Your task to perform on an android device: turn on notifications settings in the gmail app Image 0: 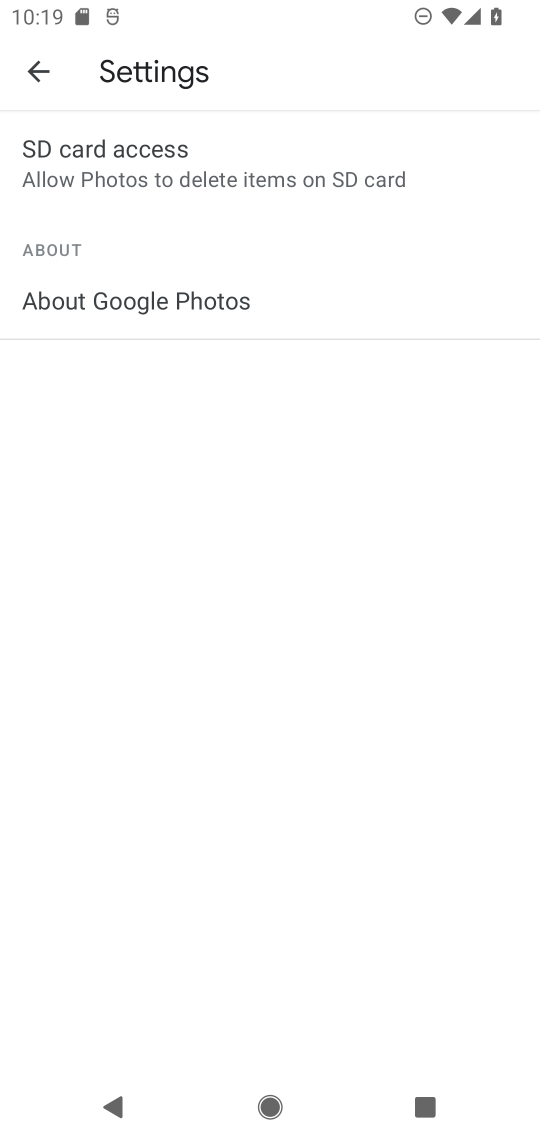
Step 0: press home button
Your task to perform on an android device: turn on notifications settings in the gmail app Image 1: 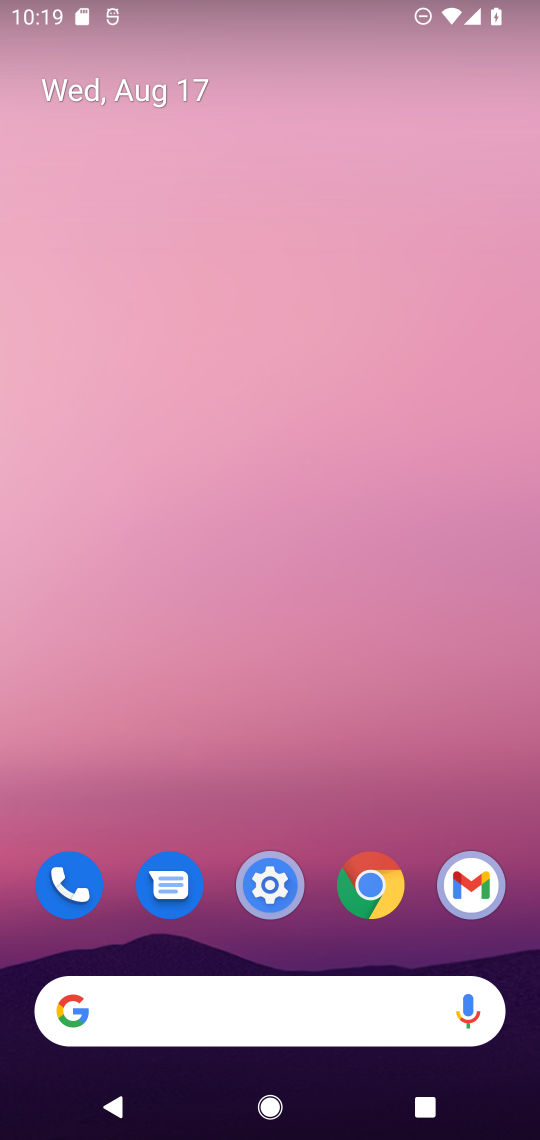
Step 1: click (476, 881)
Your task to perform on an android device: turn on notifications settings in the gmail app Image 2: 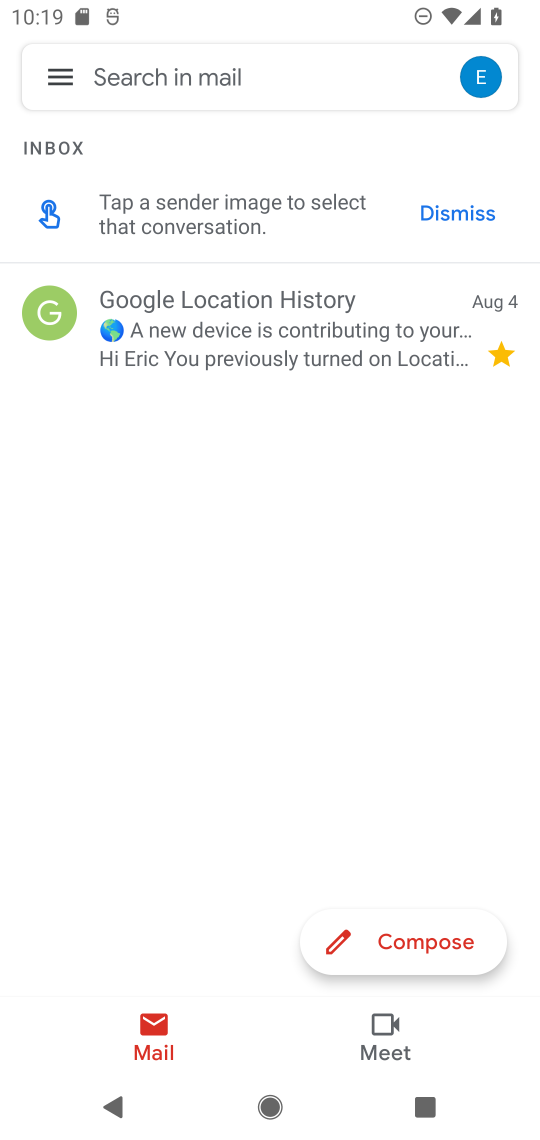
Step 2: click (58, 77)
Your task to perform on an android device: turn on notifications settings in the gmail app Image 3: 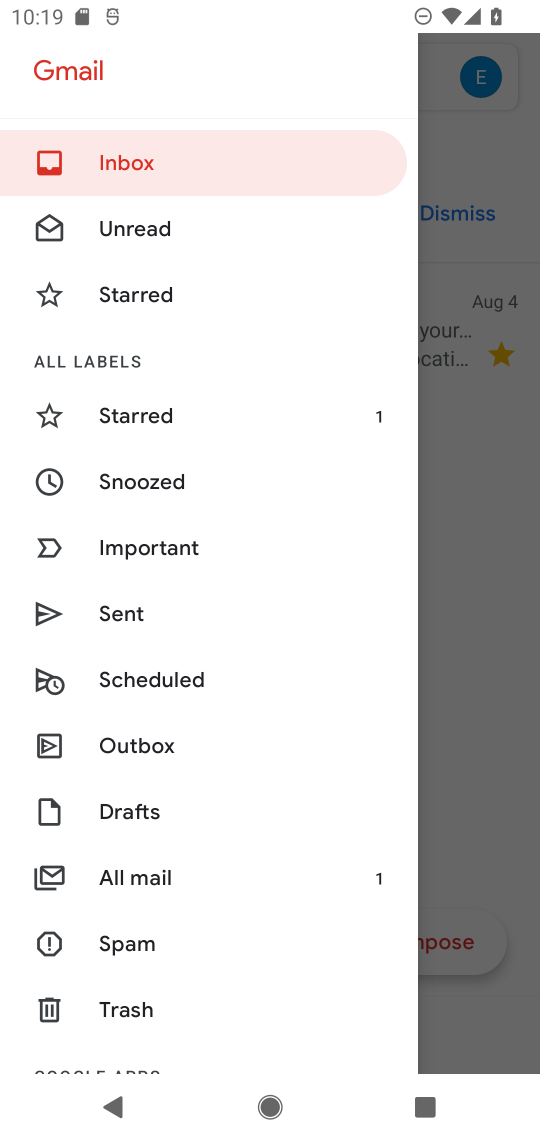
Step 3: drag from (246, 1007) to (282, 390)
Your task to perform on an android device: turn on notifications settings in the gmail app Image 4: 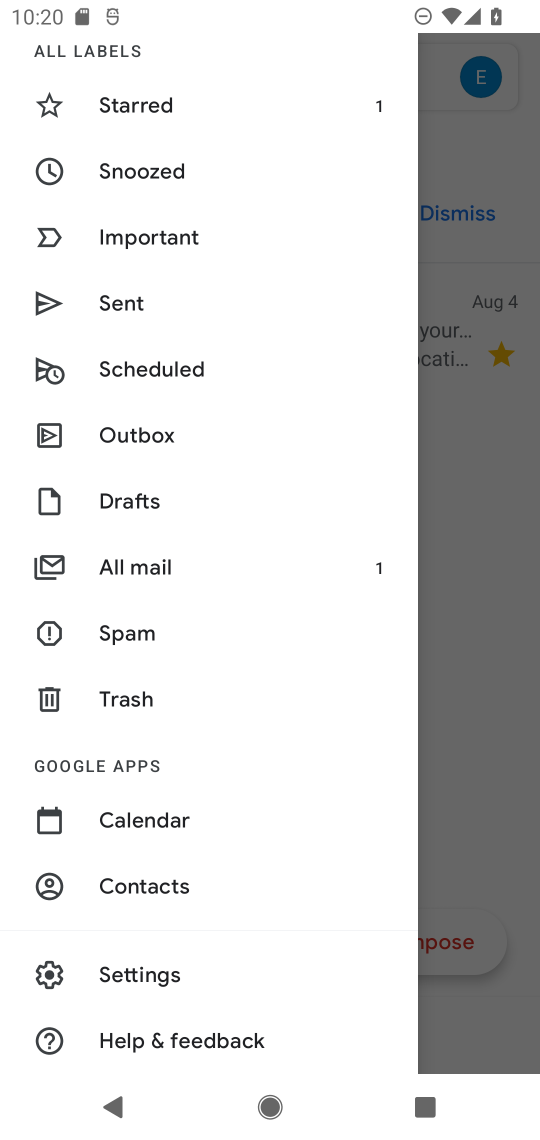
Step 4: click (143, 977)
Your task to perform on an android device: turn on notifications settings in the gmail app Image 5: 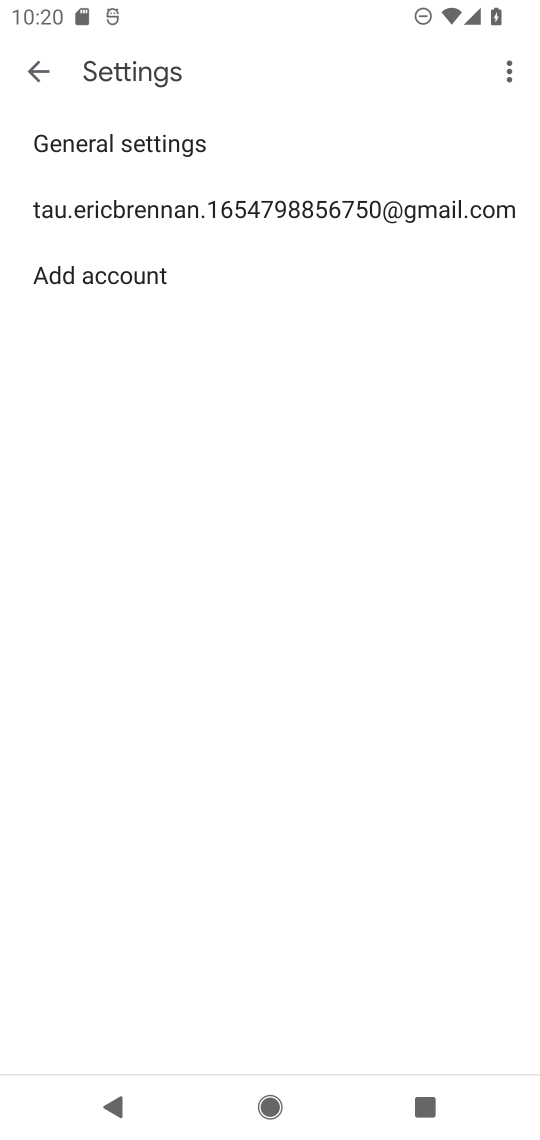
Step 5: click (245, 200)
Your task to perform on an android device: turn on notifications settings in the gmail app Image 6: 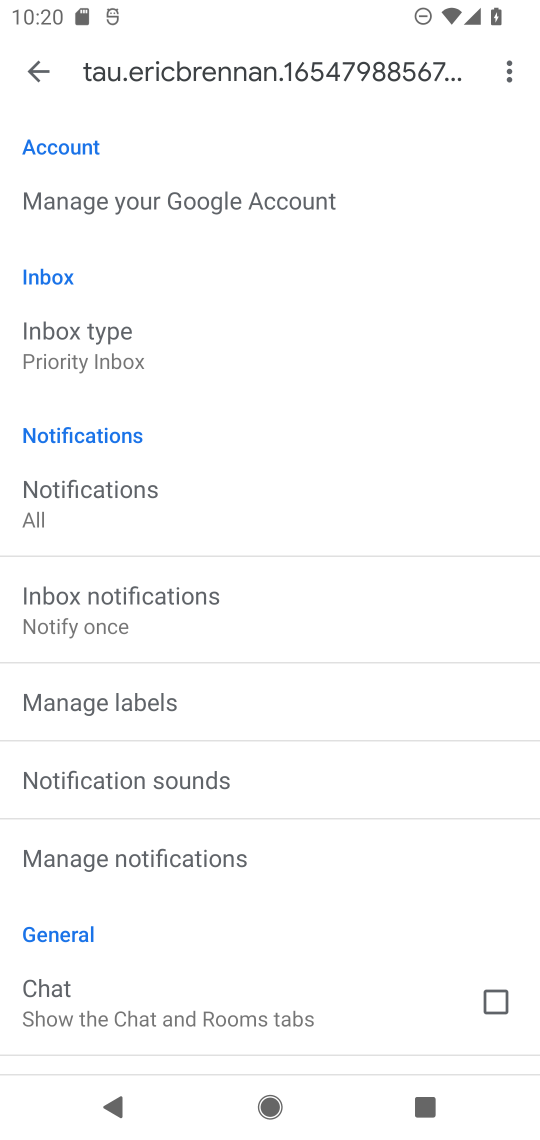
Step 6: click (177, 845)
Your task to perform on an android device: turn on notifications settings in the gmail app Image 7: 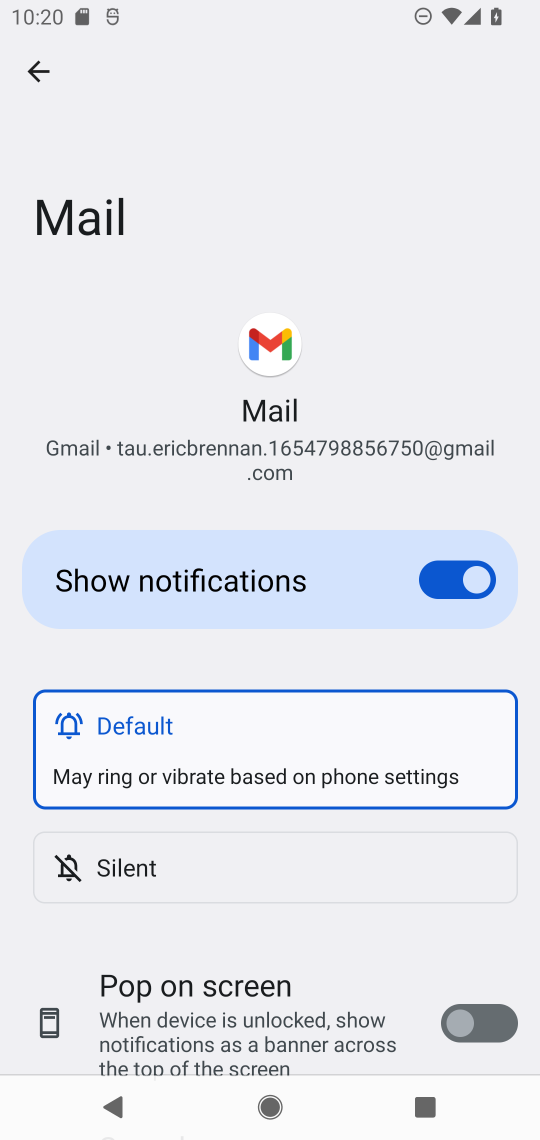
Step 7: task complete